Your task to perform on an android device: What's the weather going to be tomorrow? Image 0: 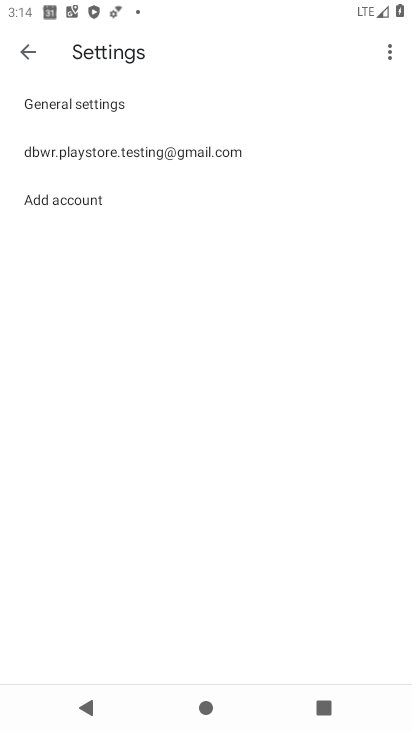
Step 0: press back button
Your task to perform on an android device: What's the weather going to be tomorrow? Image 1: 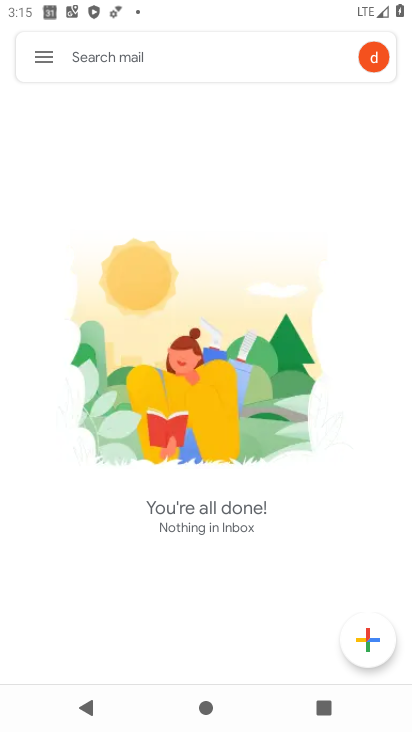
Step 1: press back button
Your task to perform on an android device: What's the weather going to be tomorrow? Image 2: 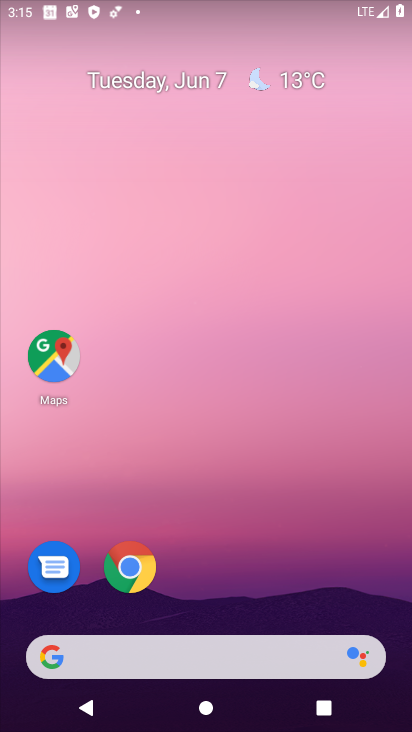
Step 2: click (133, 646)
Your task to perform on an android device: What's the weather going to be tomorrow? Image 3: 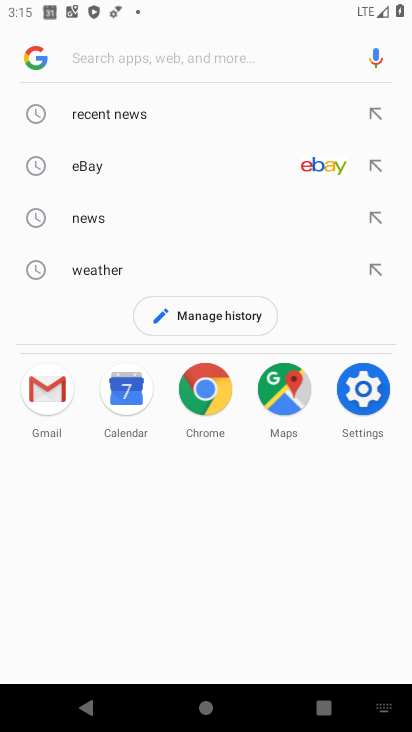
Step 3: click (93, 271)
Your task to perform on an android device: What's the weather going to be tomorrow? Image 4: 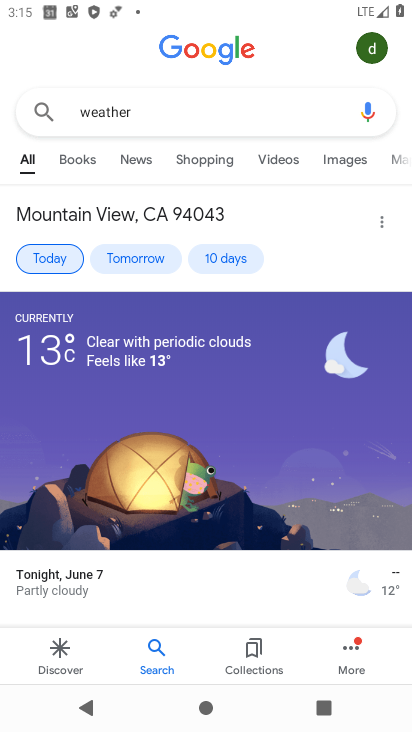
Step 4: click (117, 263)
Your task to perform on an android device: What's the weather going to be tomorrow? Image 5: 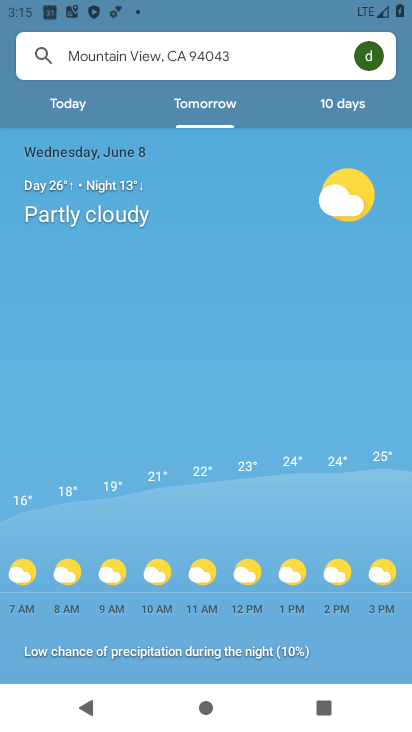
Step 5: task complete